Your task to perform on an android device: move a message to another label in the gmail app Image 0: 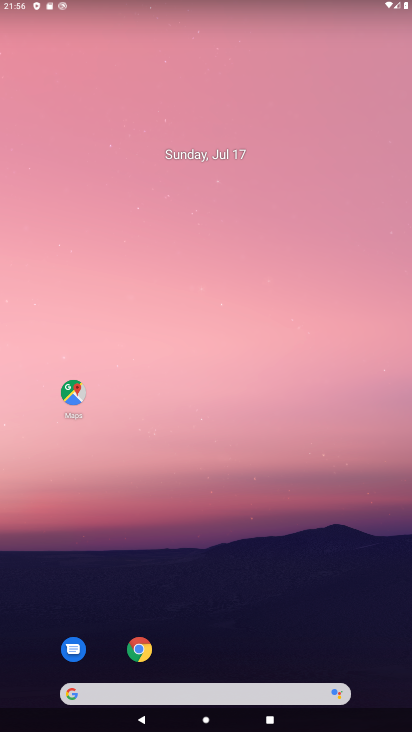
Step 0: drag from (104, 431) to (201, 14)
Your task to perform on an android device: move a message to another label in the gmail app Image 1: 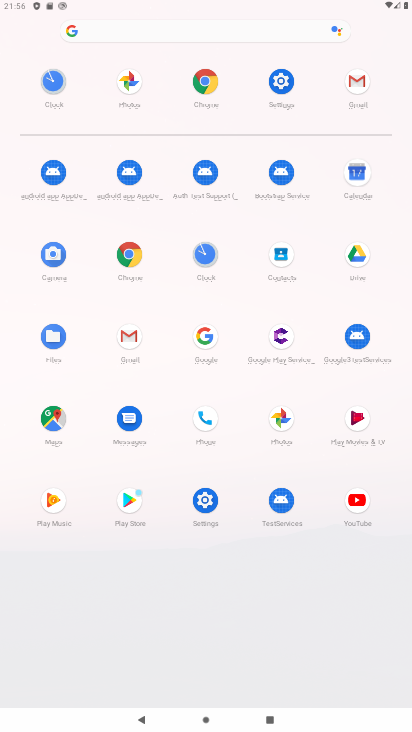
Step 1: click (136, 326)
Your task to perform on an android device: move a message to another label in the gmail app Image 2: 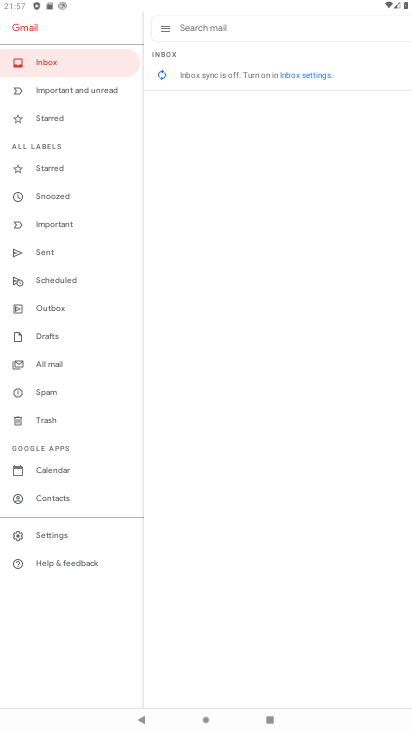
Step 2: click (44, 60)
Your task to perform on an android device: move a message to another label in the gmail app Image 3: 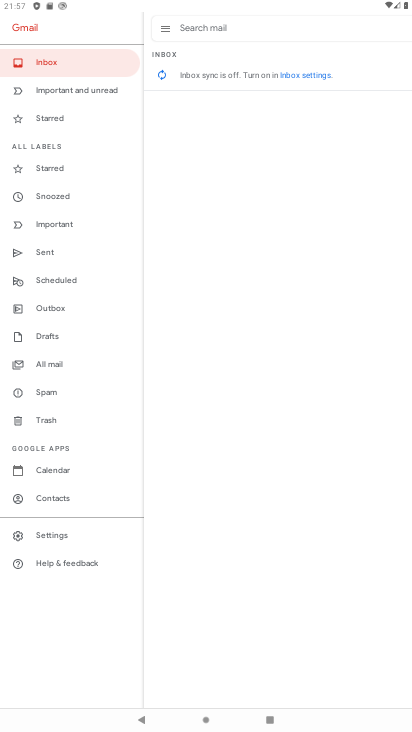
Step 3: task complete